Your task to perform on an android device: toggle location history Image 0: 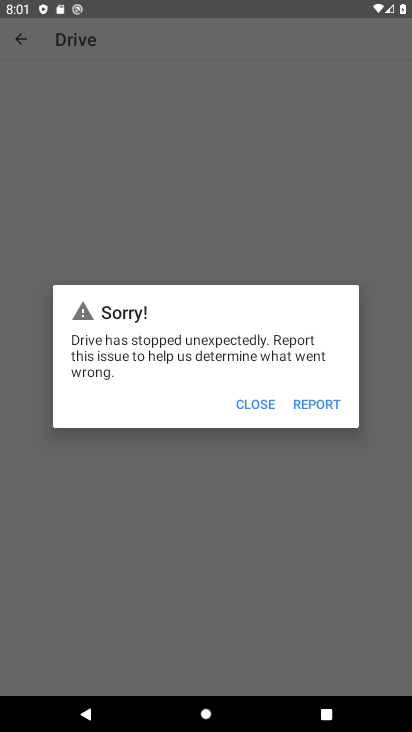
Step 0: press home button
Your task to perform on an android device: toggle location history Image 1: 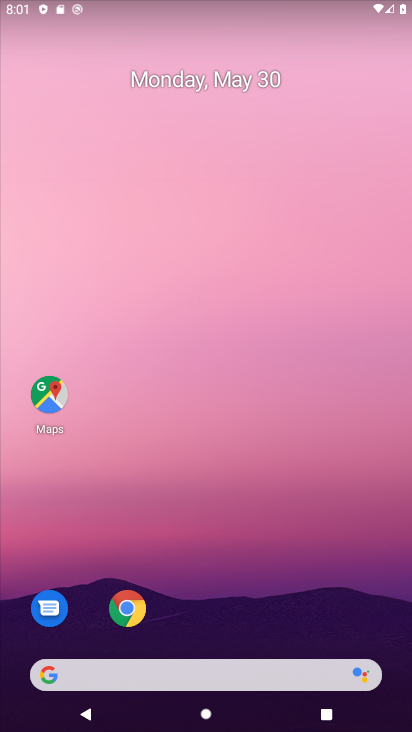
Step 1: drag from (215, 632) to (215, 94)
Your task to perform on an android device: toggle location history Image 2: 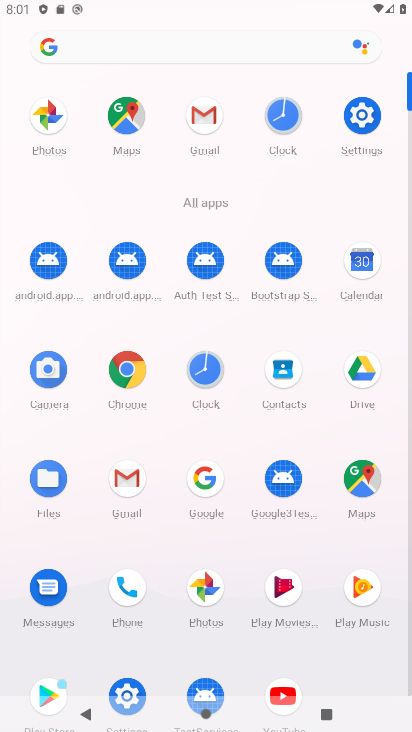
Step 2: click (362, 138)
Your task to perform on an android device: toggle location history Image 3: 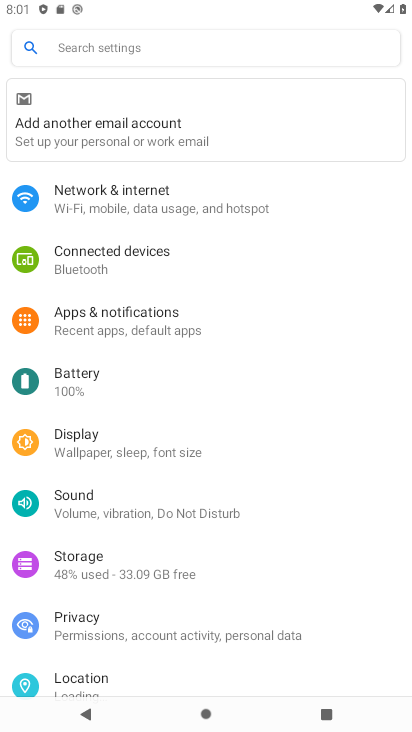
Step 3: drag from (163, 603) to (158, 386)
Your task to perform on an android device: toggle location history Image 4: 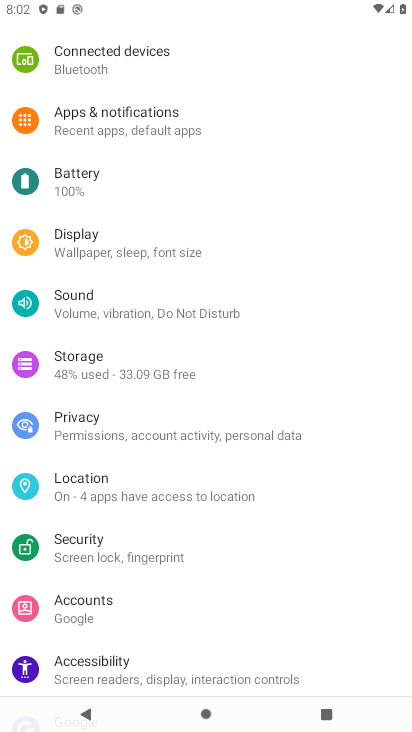
Step 4: click (129, 468)
Your task to perform on an android device: toggle location history Image 5: 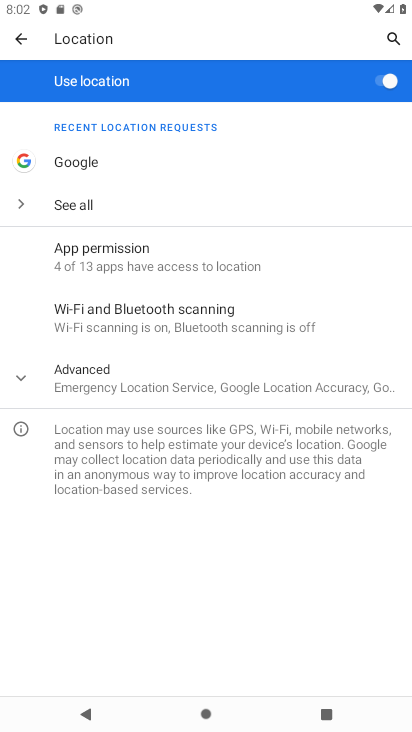
Step 5: click (375, 73)
Your task to perform on an android device: toggle location history Image 6: 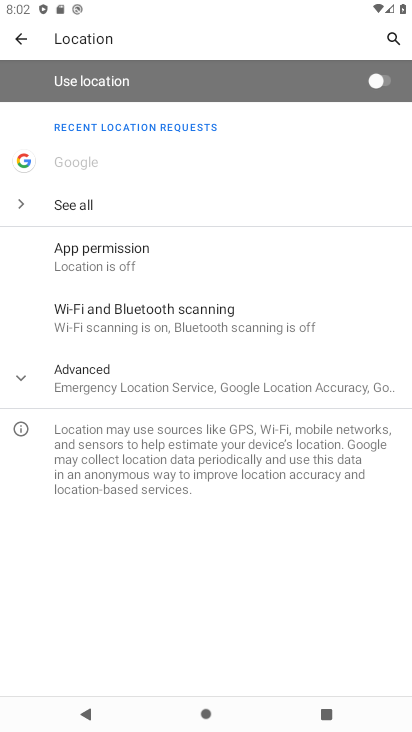
Step 6: task complete